Your task to perform on an android device: Open settings on Google Maps Image 0: 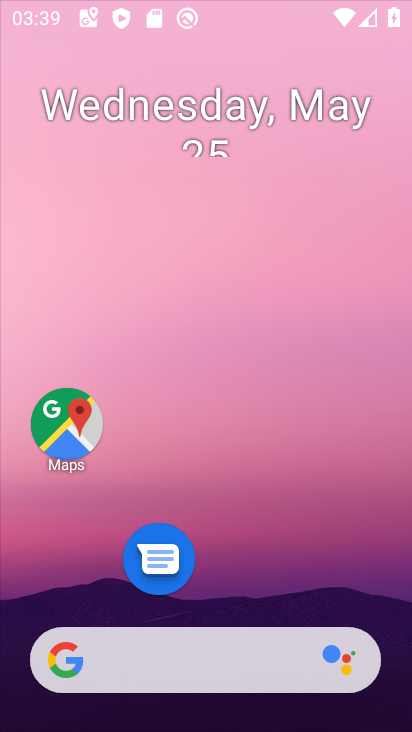
Step 0: press home button
Your task to perform on an android device: Open settings on Google Maps Image 1: 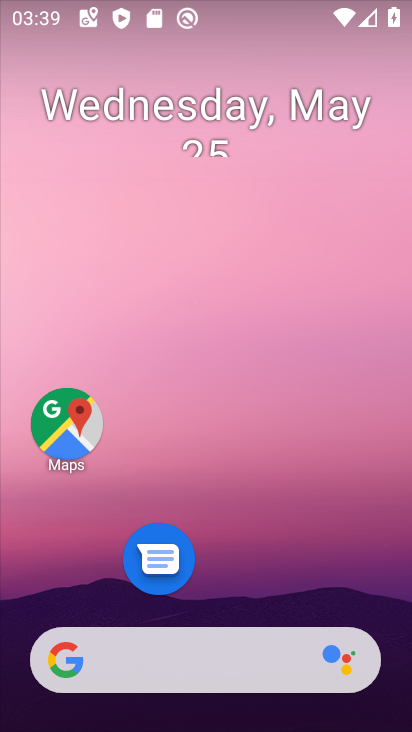
Step 1: drag from (225, 609) to (218, 56)
Your task to perform on an android device: Open settings on Google Maps Image 2: 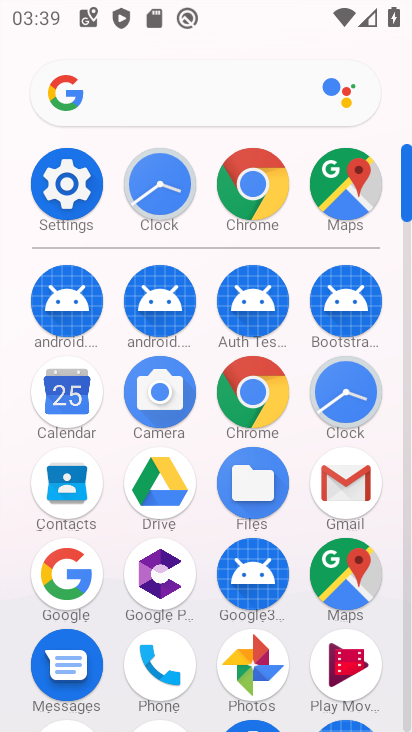
Step 2: click (345, 176)
Your task to perform on an android device: Open settings on Google Maps Image 3: 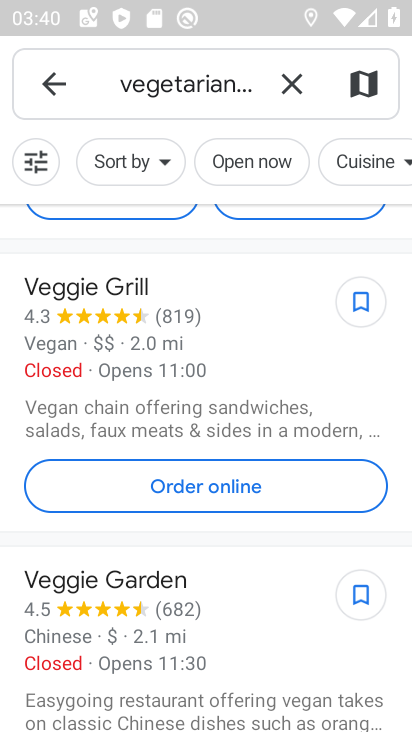
Step 3: click (51, 86)
Your task to perform on an android device: Open settings on Google Maps Image 4: 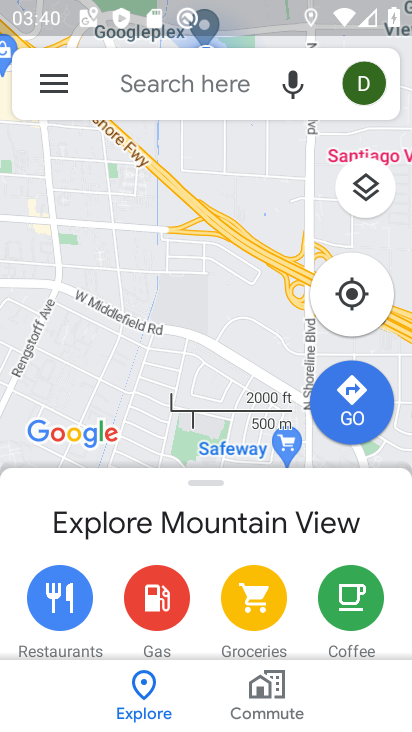
Step 4: click (56, 80)
Your task to perform on an android device: Open settings on Google Maps Image 5: 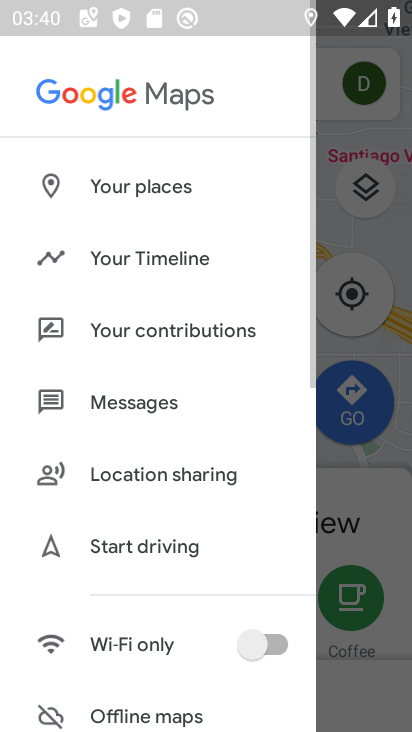
Step 5: drag from (105, 640) to (152, 89)
Your task to perform on an android device: Open settings on Google Maps Image 6: 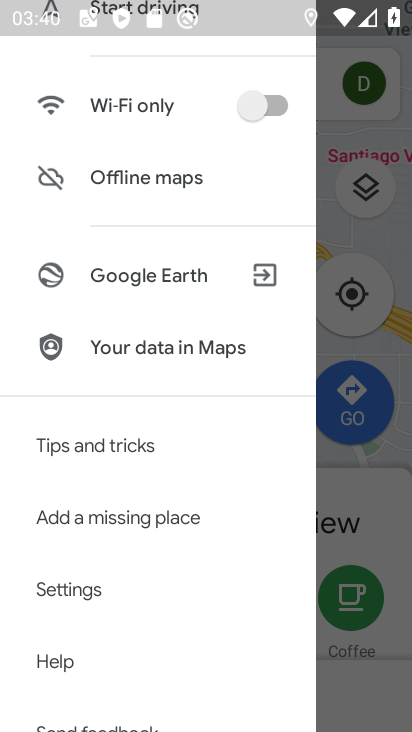
Step 6: click (103, 588)
Your task to perform on an android device: Open settings on Google Maps Image 7: 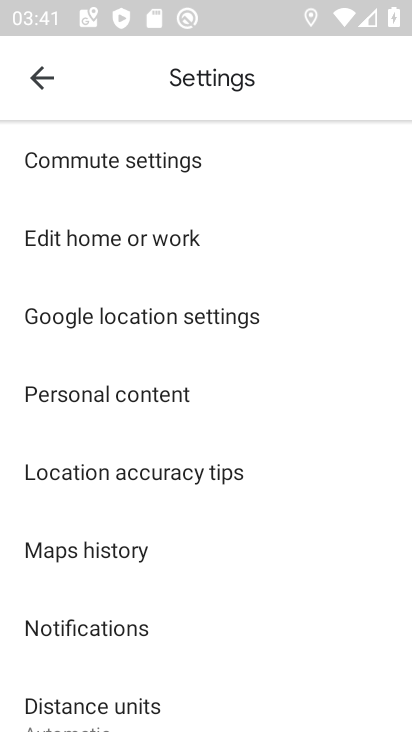
Step 7: task complete